Your task to perform on an android device: Go to Yahoo.com Image 0: 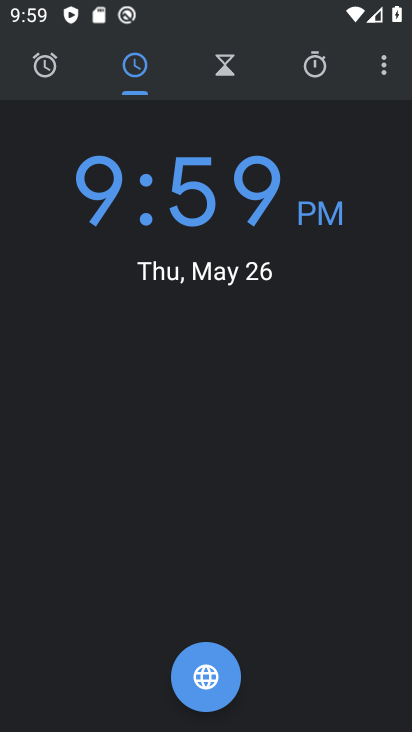
Step 0: press home button
Your task to perform on an android device: Go to Yahoo.com Image 1: 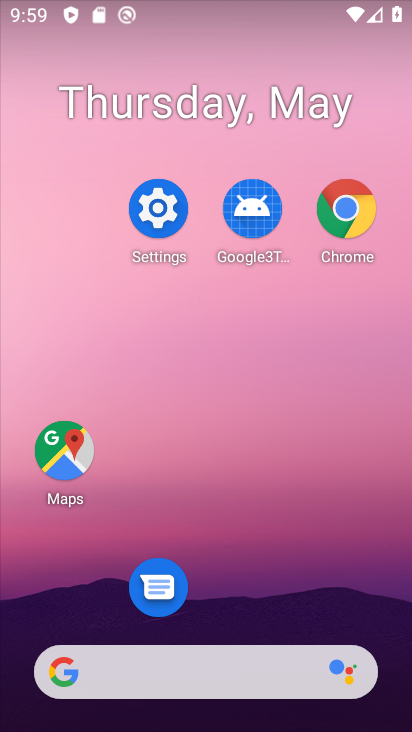
Step 1: click (343, 207)
Your task to perform on an android device: Go to Yahoo.com Image 2: 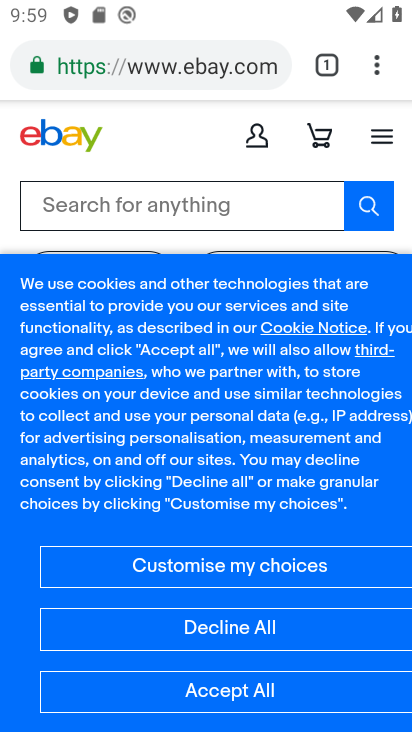
Step 2: press back button
Your task to perform on an android device: Go to Yahoo.com Image 3: 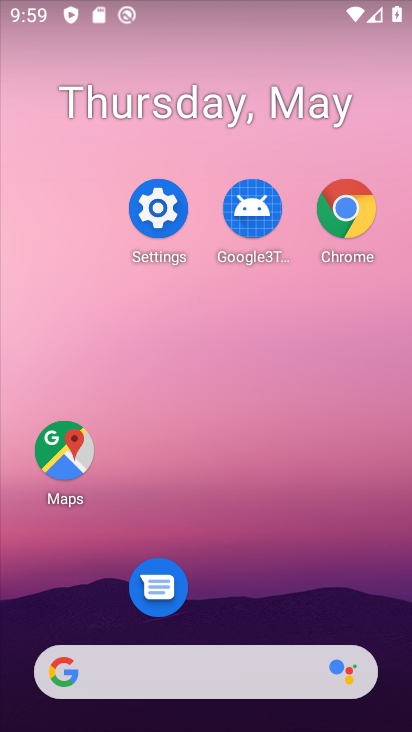
Step 3: click (360, 243)
Your task to perform on an android device: Go to Yahoo.com Image 4: 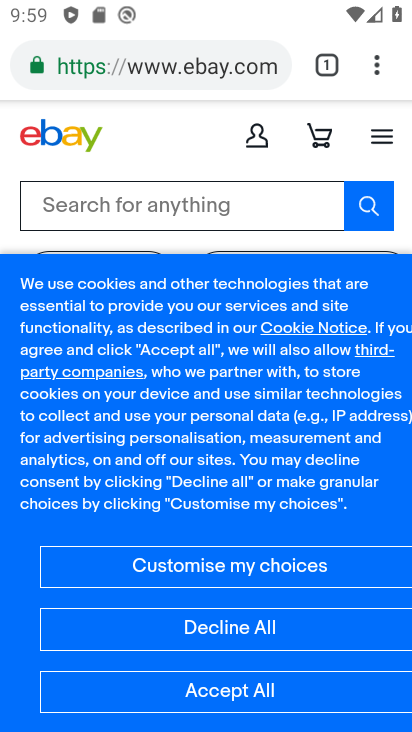
Step 4: click (174, 85)
Your task to perform on an android device: Go to Yahoo.com Image 5: 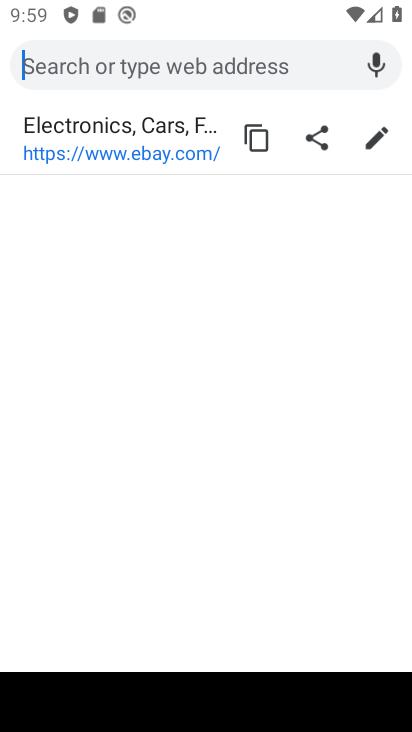
Step 5: click (200, 61)
Your task to perform on an android device: Go to Yahoo.com Image 6: 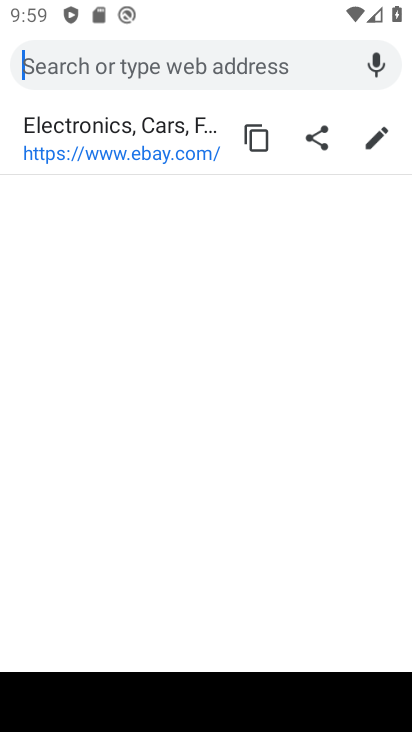
Step 6: click (200, 61)
Your task to perform on an android device: Go to Yahoo.com Image 7: 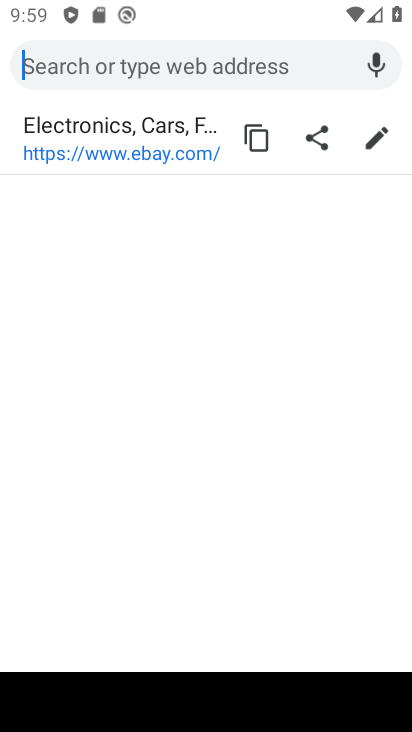
Step 7: type "www.yahoo.com"
Your task to perform on an android device: Go to Yahoo.com Image 8: 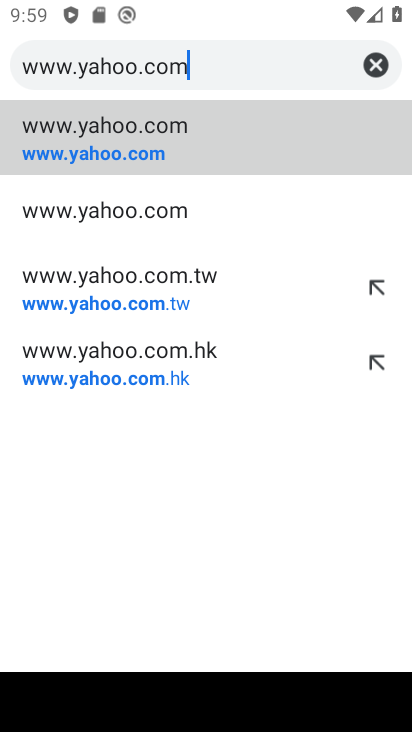
Step 8: click (18, 119)
Your task to perform on an android device: Go to Yahoo.com Image 9: 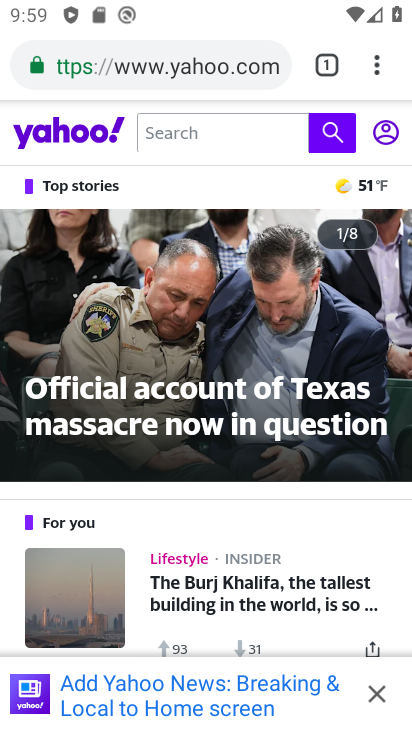
Step 9: task complete